Your task to perform on an android device: Go to ESPN.com Image 0: 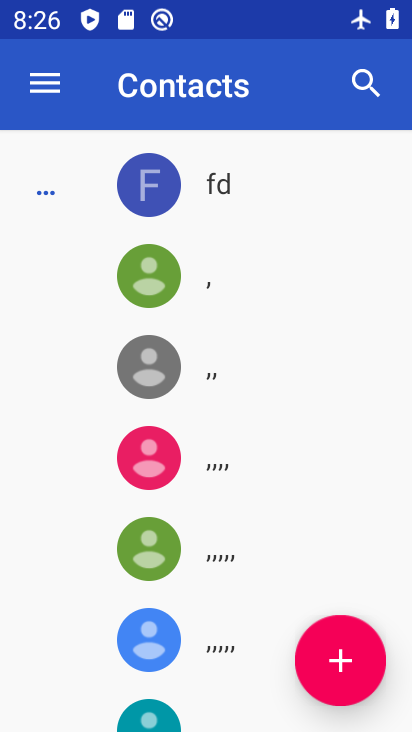
Step 0: press back button
Your task to perform on an android device: Go to ESPN.com Image 1: 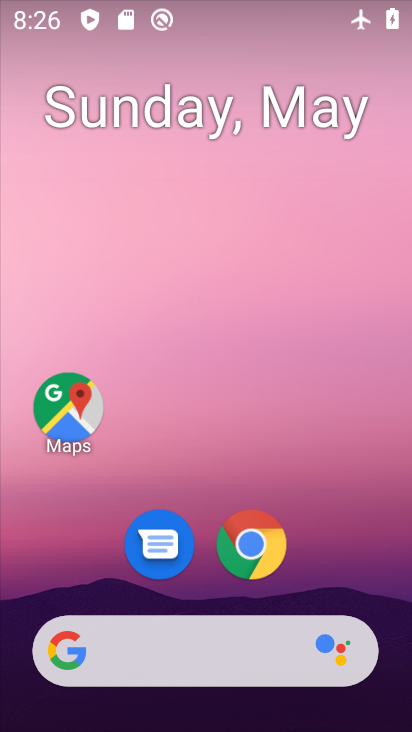
Step 1: click (248, 528)
Your task to perform on an android device: Go to ESPN.com Image 2: 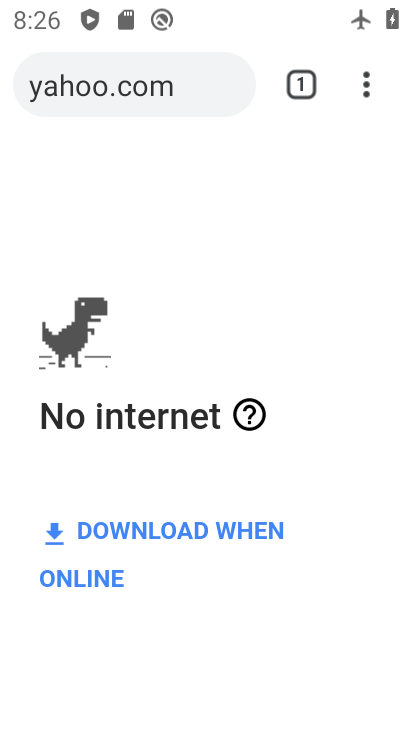
Step 2: click (124, 83)
Your task to perform on an android device: Go to ESPN.com Image 3: 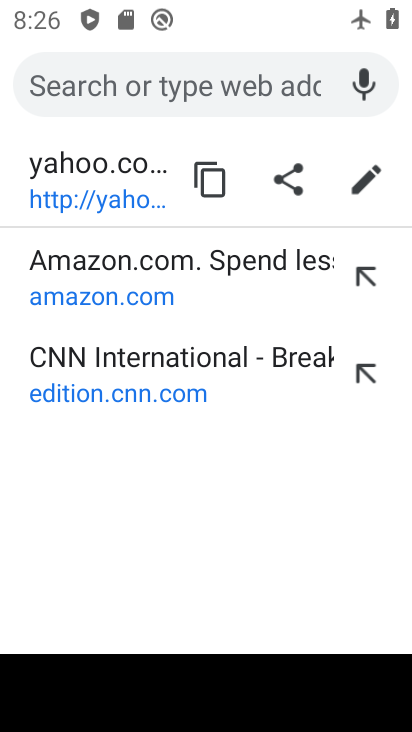
Step 3: type "ESPN.com"
Your task to perform on an android device: Go to ESPN.com Image 4: 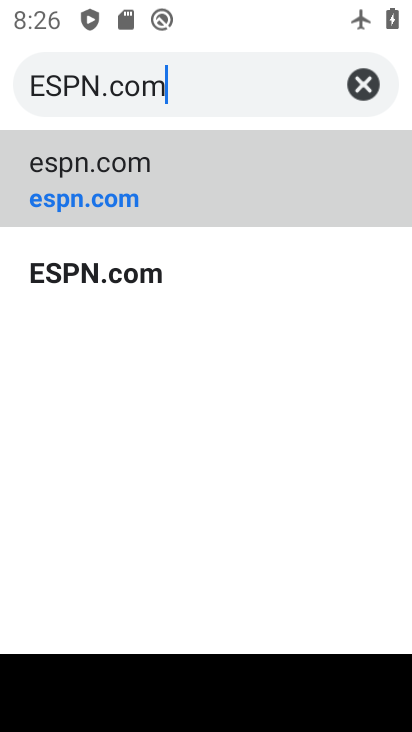
Step 4: type ""
Your task to perform on an android device: Go to ESPN.com Image 5: 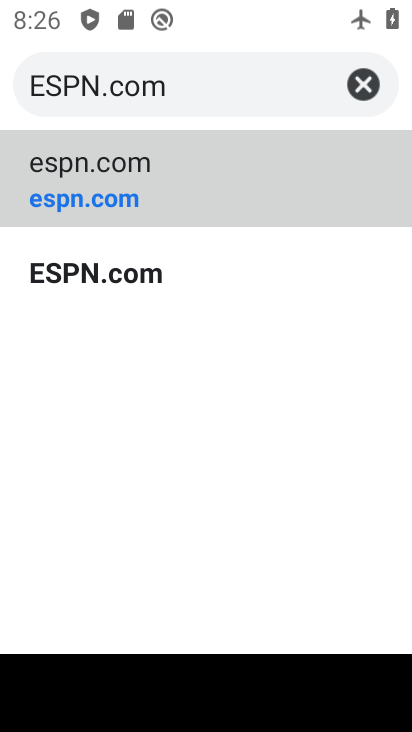
Step 5: click (190, 144)
Your task to perform on an android device: Go to ESPN.com Image 6: 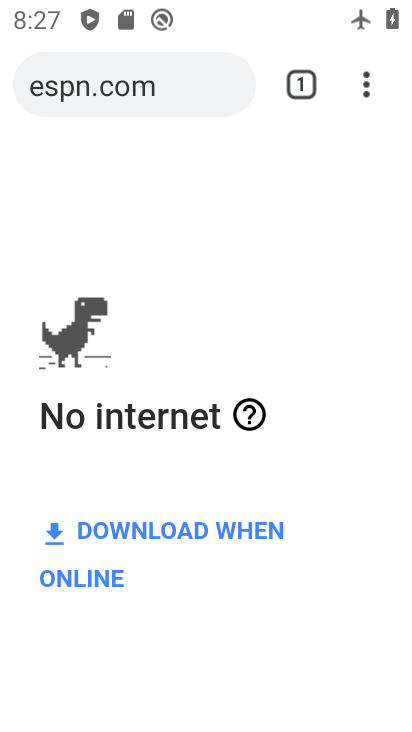
Step 6: task complete